Your task to perform on an android device: toggle notifications settings in the gmail app Image 0: 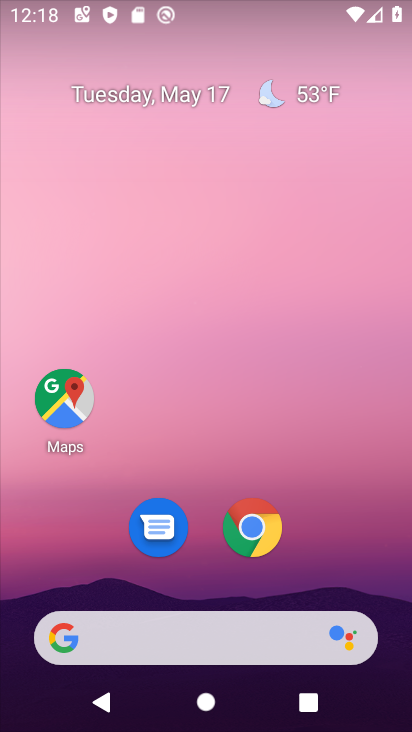
Step 0: drag from (375, 534) to (356, 112)
Your task to perform on an android device: toggle notifications settings in the gmail app Image 1: 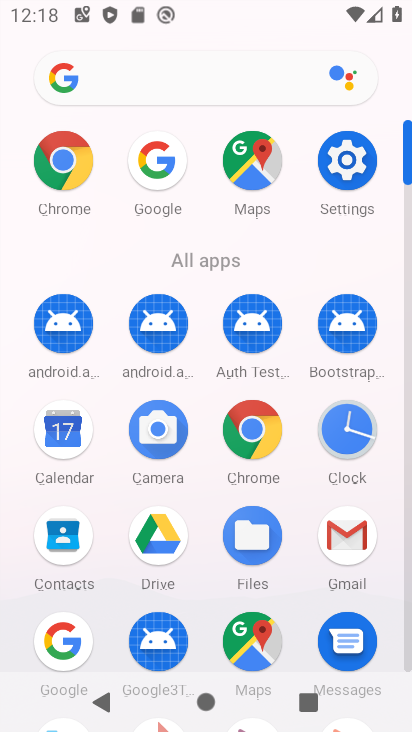
Step 1: click (354, 551)
Your task to perform on an android device: toggle notifications settings in the gmail app Image 2: 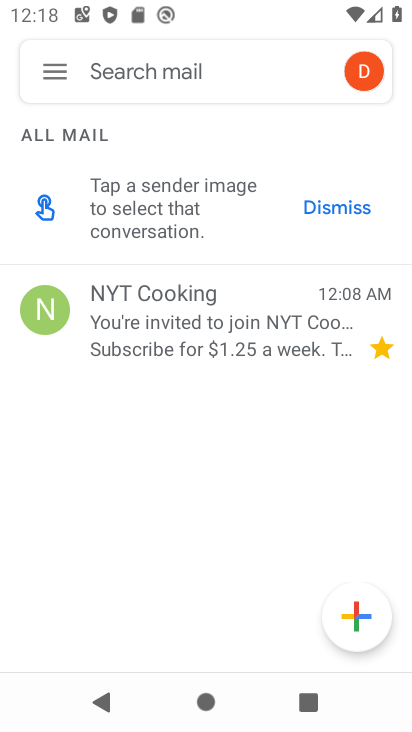
Step 2: click (55, 78)
Your task to perform on an android device: toggle notifications settings in the gmail app Image 3: 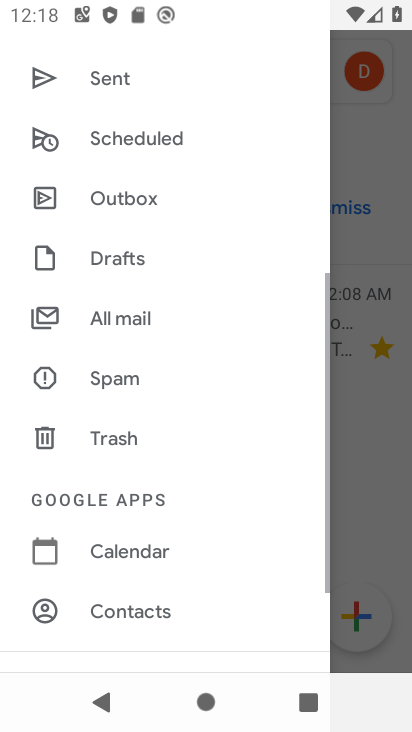
Step 3: drag from (180, 591) to (188, 212)
Your task to perform on an android device: toggle notifications settings in the gmail app Image 4: 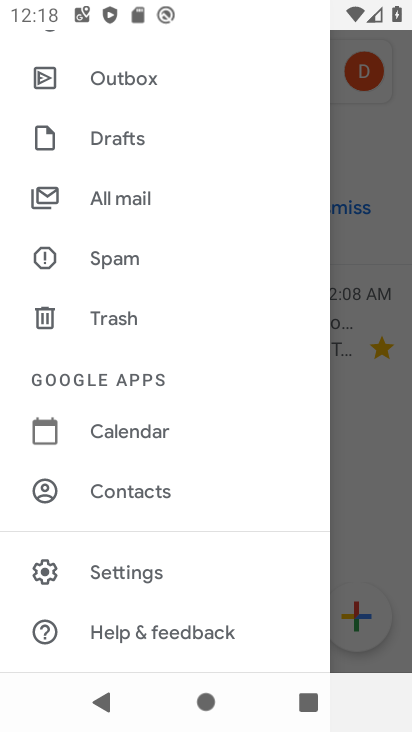
Step 4: click (156, 580)
Your task to perform on an android device: toggle notifications settings in the gmail app Image 5: 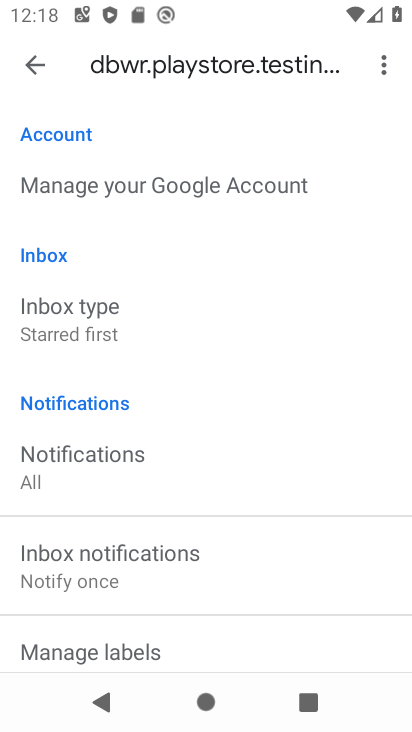
Step 5: click (140, 472)
Your task to perform on an android device: toggle notifications settings in the gmail app Image 6: 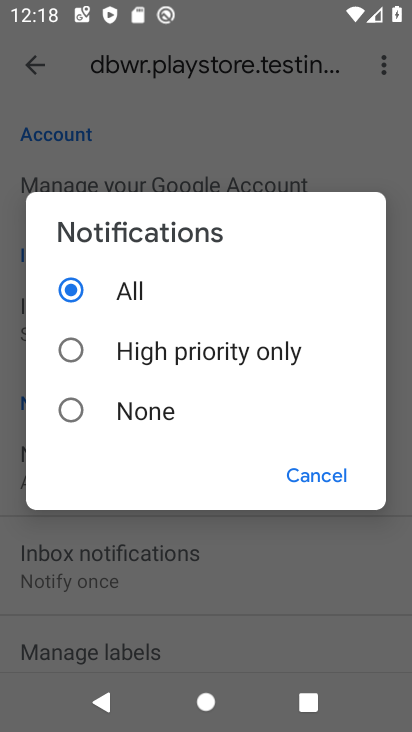
Step 6: click (93, 404)
Your task to perform on an android device: toggle notifications settings in the gmail app Image 7: 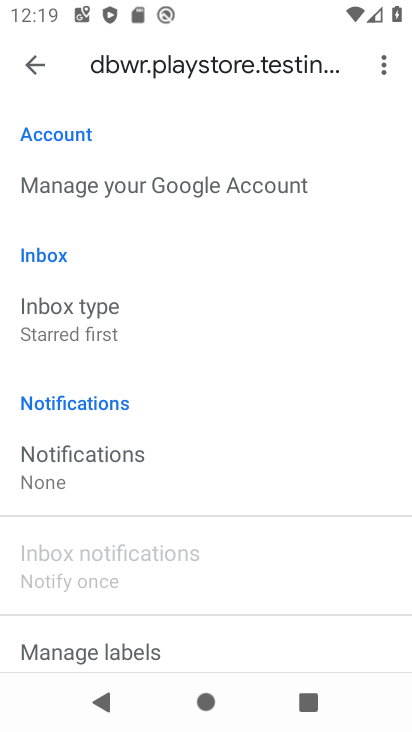
Step 7: task complete